Your task to perform on an android device: show emergency info Image 0: 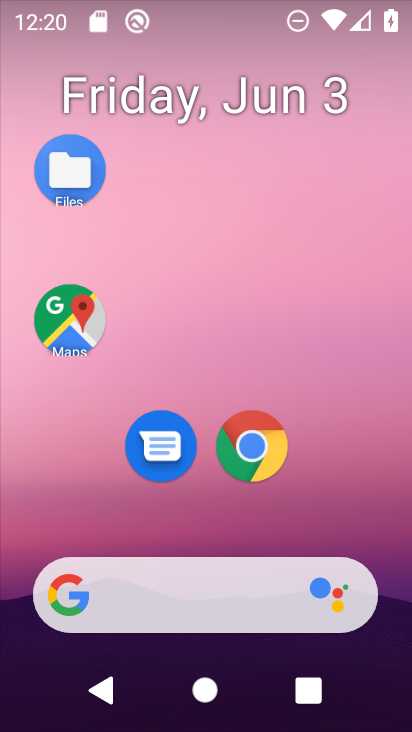
Step 0: drag from (255, 698) to (222, 194)
Your task to perform on an android device: show emergency info Image 1: 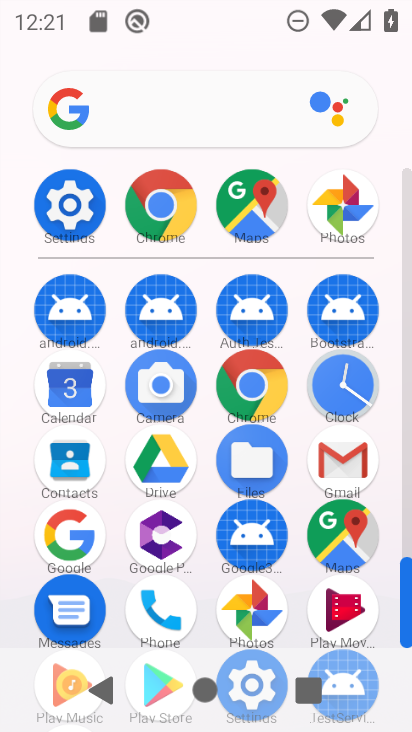
Step 1: click (66, 191)
Your task to perform on an android device: show emergency info Image 2: 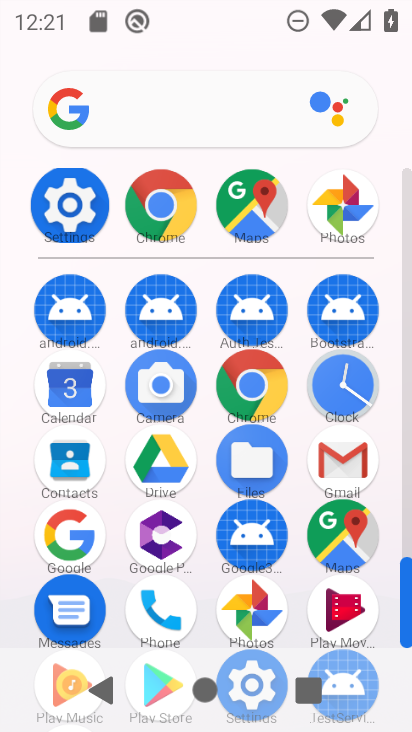
Step 2: click (66, 191)
Your task to perform on an android device: show emergency info Image 3: 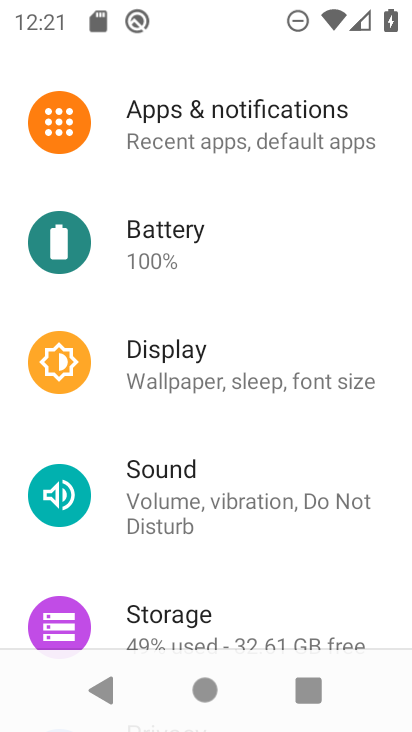
Step 3: drag from (219, 528) to (192, 78)
Your task to perform on an android device: show emergency info Image 4: 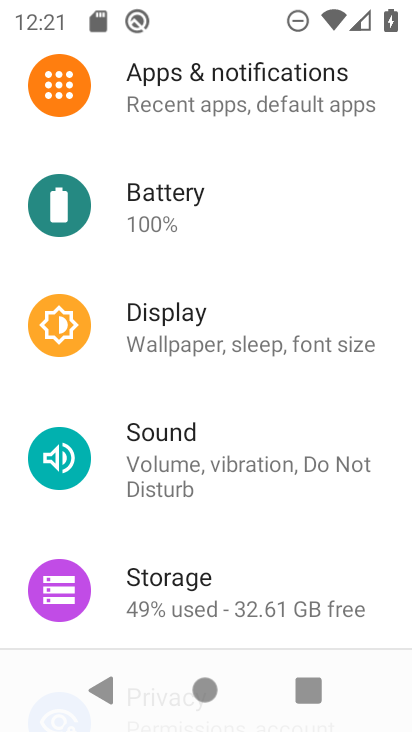
Step 4: drag from (231, 431) to (162, 64)
Your task to perform on an android device: show emergency info Image 5: 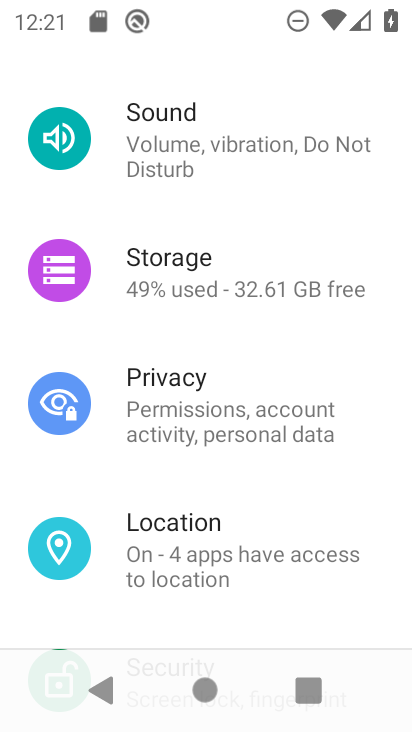
Step 5: drag from (272, 473) to (272, 111)
Your task to perform on an android device: show emergency info Image 6: 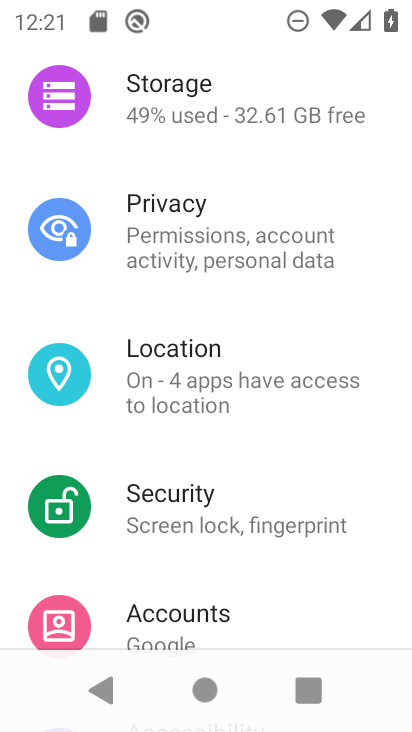
Step 6: drag from (246, 435) to (217, 16)
Your task to perform on an android device: show emergency info Image 7: 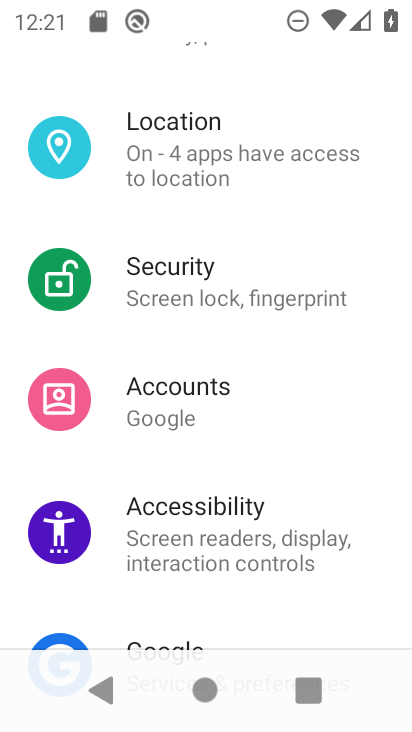
Step 7: drag from (226, 460) to (206, 174)
Your task to perform on an android device: show emergency info Image 8: 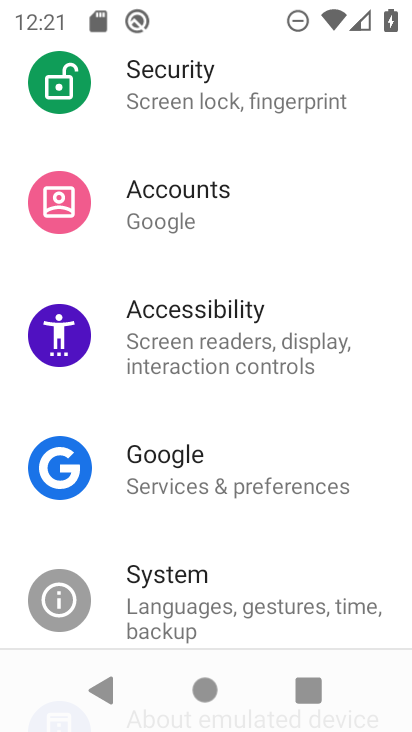
Step 8: drag from (210, 548) to (164, 221)
Your task to perform on an android device: show emergency info Image 9: 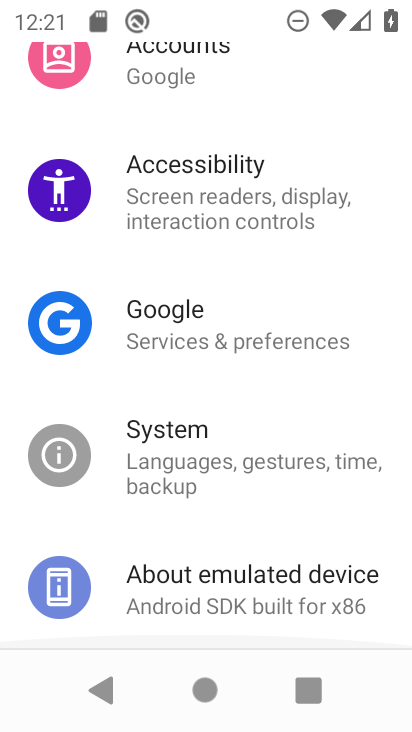
Step 9: click (154, 255)
Your task to perform on an android device: show emergency info Image 10: 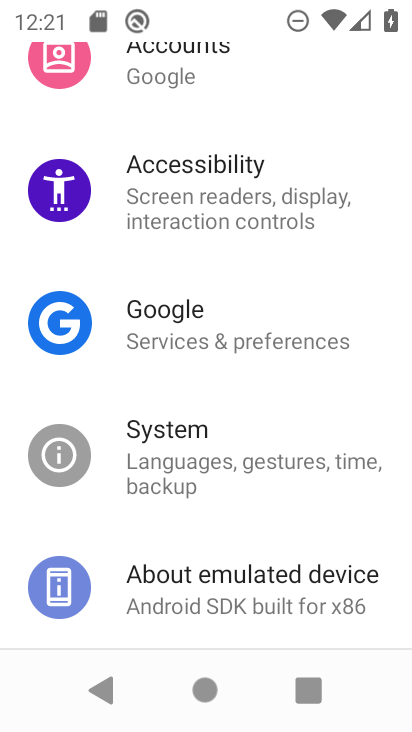
Step 10: drag from (222, 596) to (177, 131)
Your task to perform on an android device: show emergency info Image 11: 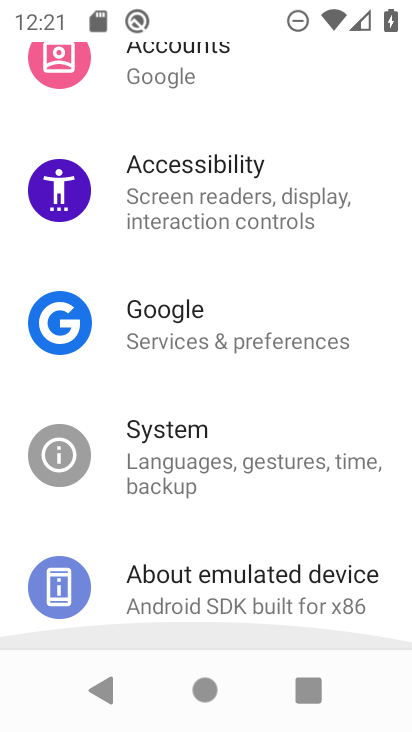
Step 11: drag from (285, 539) to (254, 238)
Your task to perform on an android device: show emergency info Image 12: 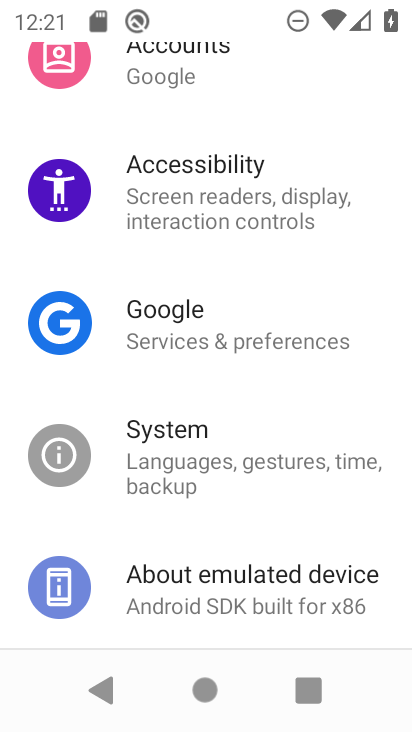
Step 12: click (233, 603)
Your task to perform on an android device: show emergency info Image 13: 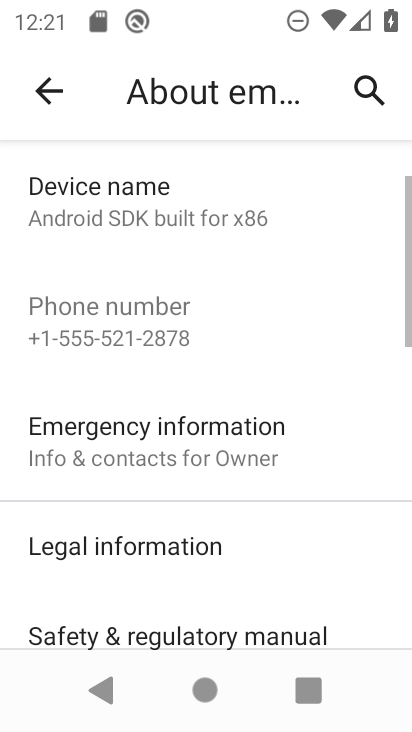
Step 13: drag from (231, 590) to (136, 261)
Your task to perform on an android device: show emergency info Image 14: 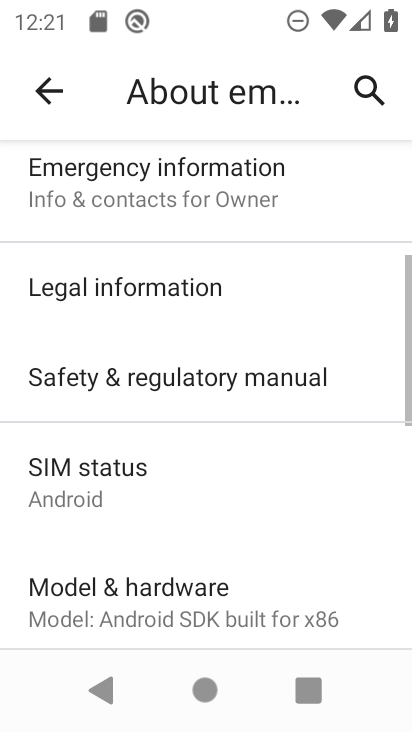
Step 14: drag from (208, 516) to (168, 231)
Your task to perform on an android device: show emergency info Image 15: 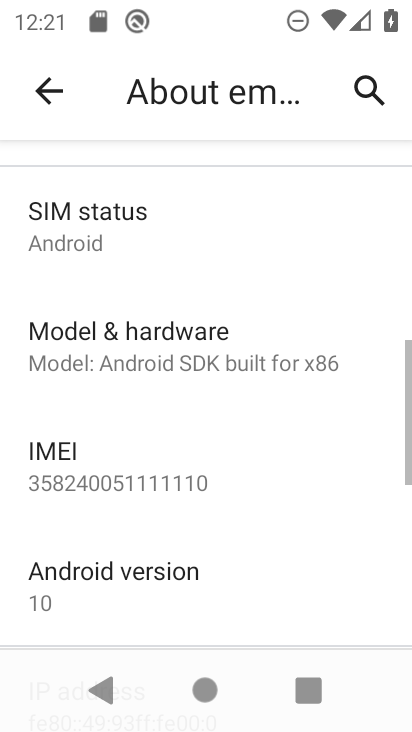
Step 15: drag from (252, 469) to (244, 133)
Your task to perform on an android device: show emergency info Image 16: 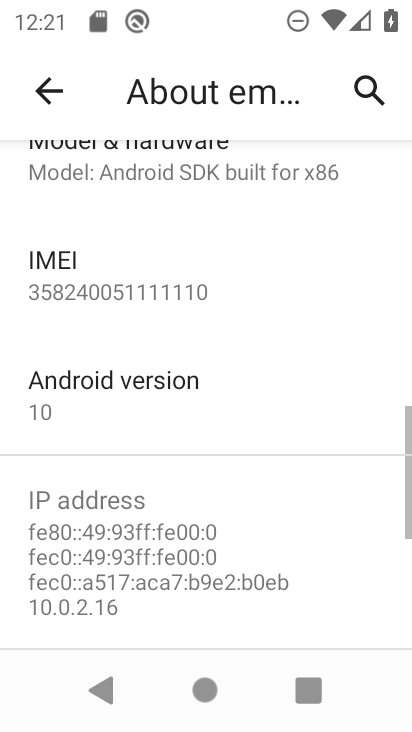
Step 16: drag from (283, 463) to (250, 195)
Your task to perform on an android device: show emergency info Image 17: 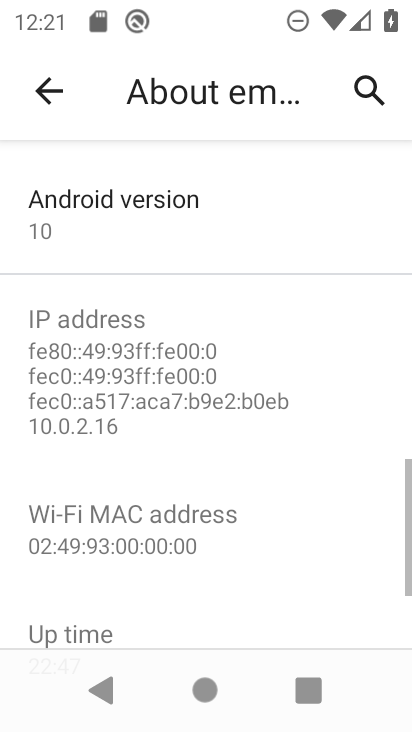
Step 17: drag from (272, 520) to (217, 237)
Your task to perform on an android device: show emergency info Image 18: 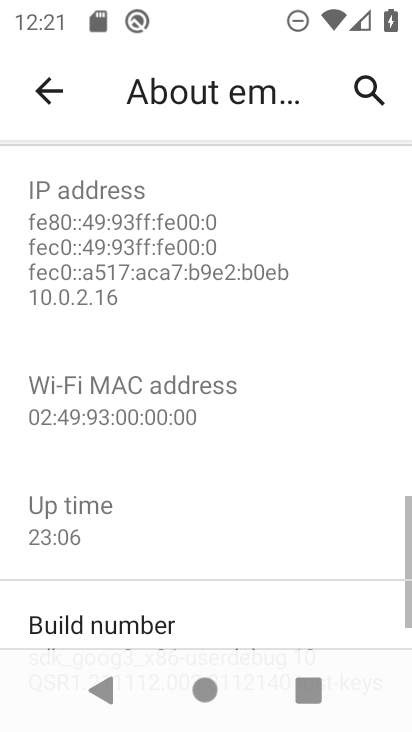
Step 18: drag from (134, 248) to (245, 503)
Your task to perform on an android device: show emergency info Image 19: 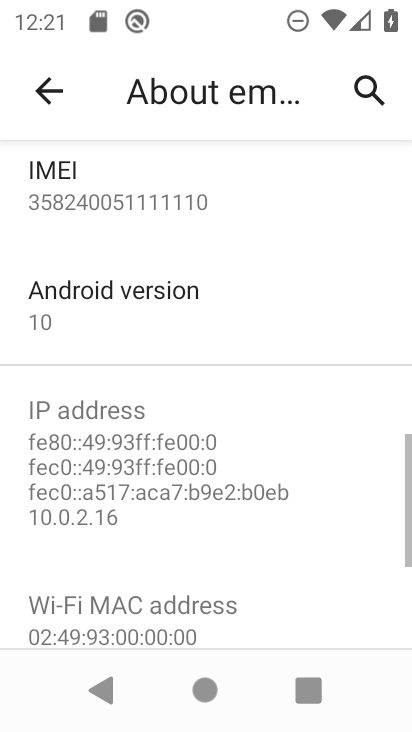
Step 19: drag from (145, 261) to (213, 512)
Your task to perform on an android device: show emergency info Image 20: 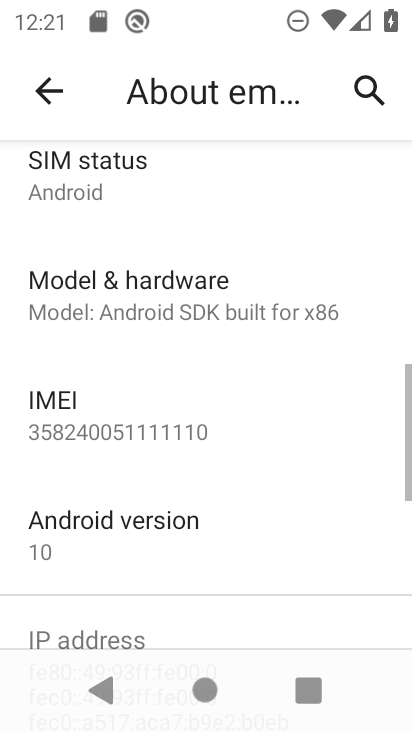
Step 20: drag from (134, 277) to (192, 419)
Your task to perform on an android device: show emergency info Image 21: 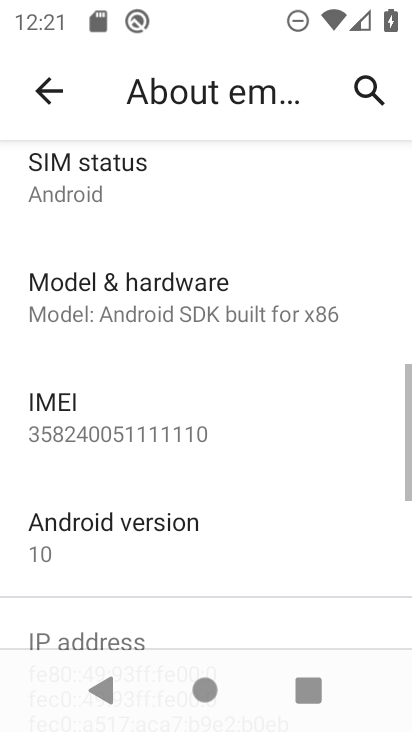
Step 21: drag from (175, 266) to (251, 515)
Your task to perform on an android device: show emergency info Image 22: 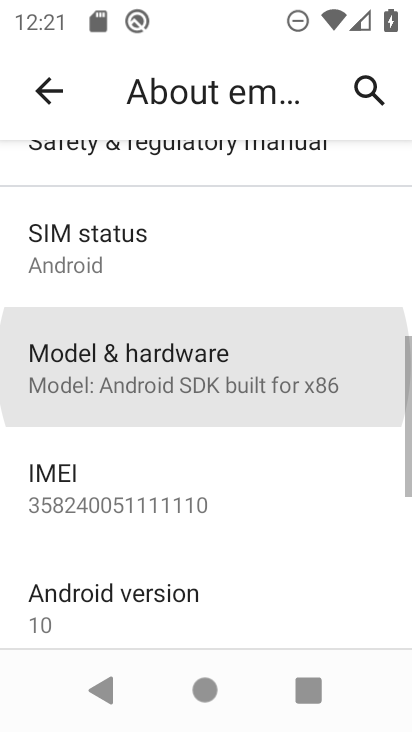
Step 22: drag from (177, 262) to (268, 532)
Your task to perform on an android device: show emergency info Image 23: 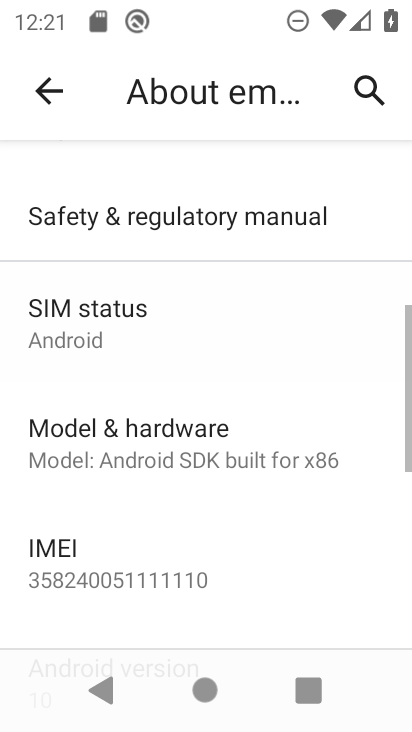
Step 23: drag from (195, 291) to (275, 532)
Your task to perform on an android device: show emergency info Image 24: 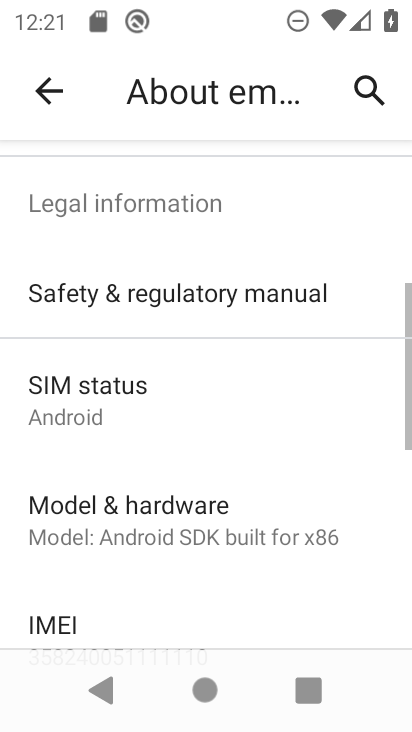
Step 24: drag from (192, 242) to (241, 543)
Your task to perform on an android device: show emergency info Image 25: 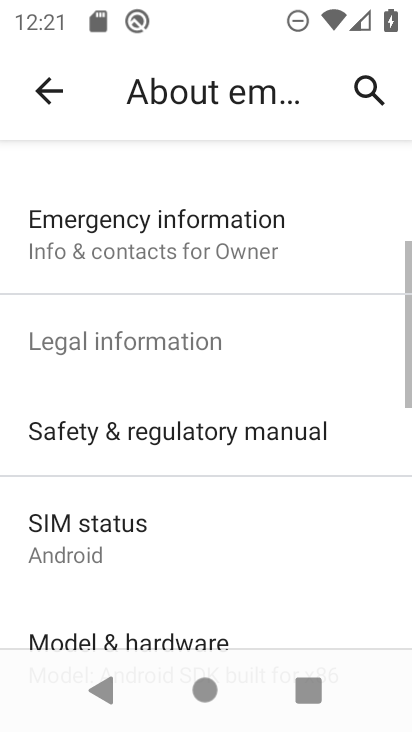
Step 25: drag from (146, 284) to (243, 582)
Your task to perform on an android device: show emergency info Image 26: 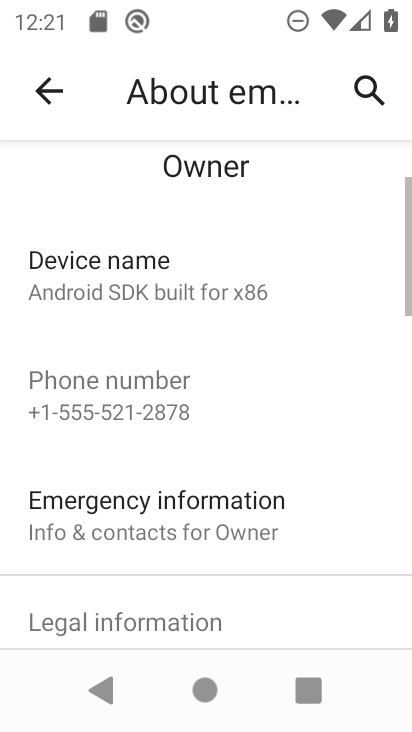
Step 26: click (123, 508)
Your task to perform on an android device: show emergency info Image 27: 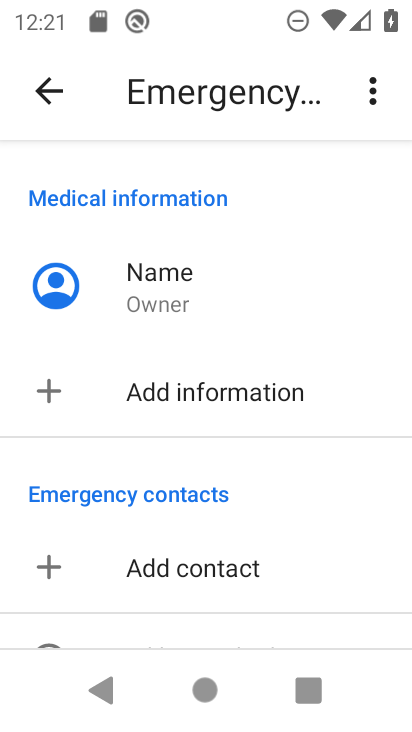
Step 27: task complete